Your task to perform on an android device: toggle priority inbox in the gmail app Image 0: 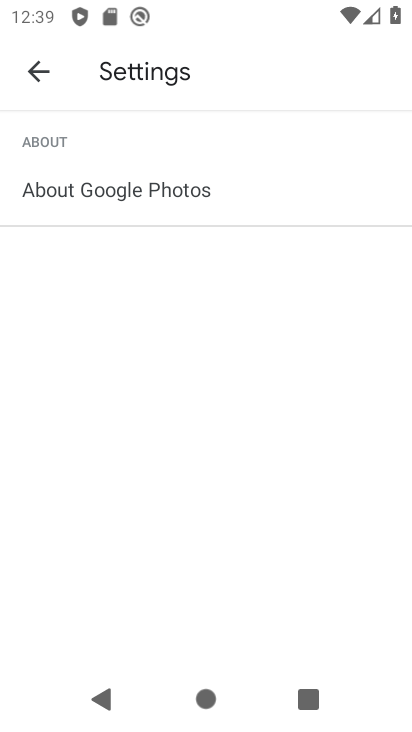
Step 0: press home button
Your task to perform on an android device: toggle priority inbox in the gmail app Image 1: 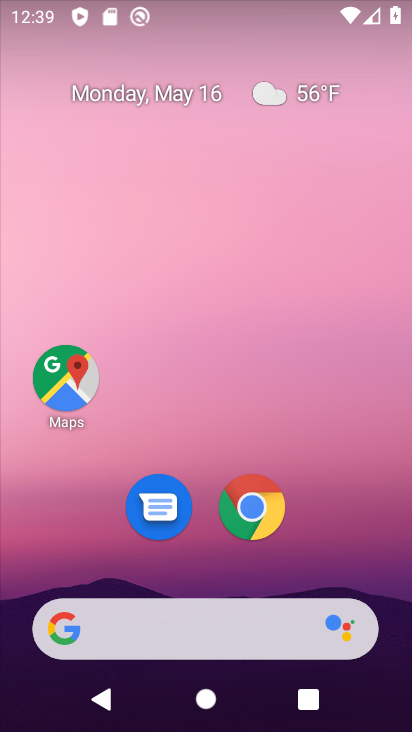
Step 1: drag from (202, 570) to (207, 219)
Your task to perform on an android device: toggle priority inbox in the gmail app Image 2: 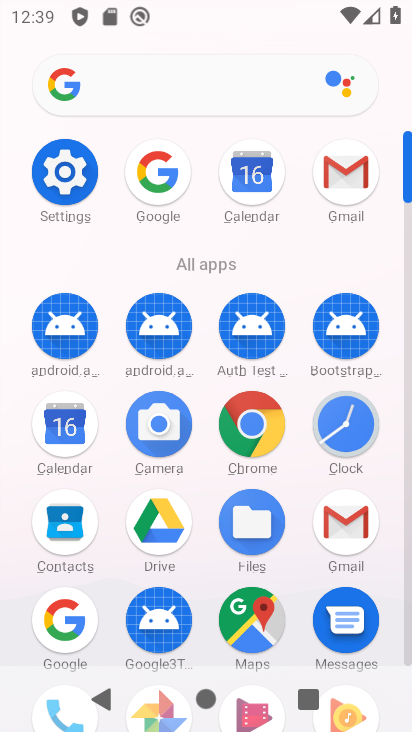
Step 2: click (325, 192)
Your task to perform on an android device: toggle priority inbox in the gmail app Image 3: 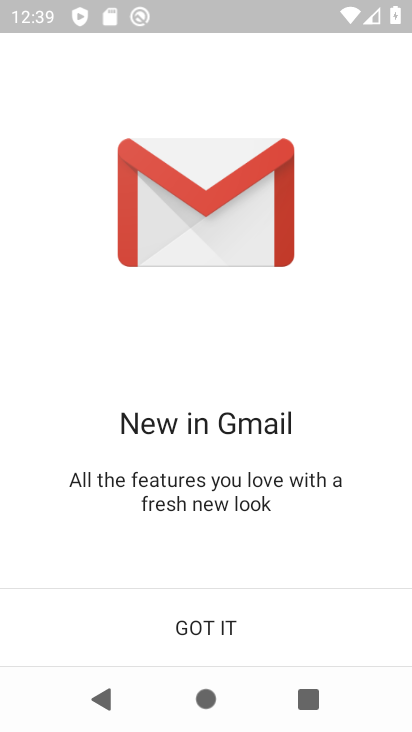
Step 3: click (216, 607)
Your task to perform on an android device: toggle priority inbox in the gmail app Image 4: 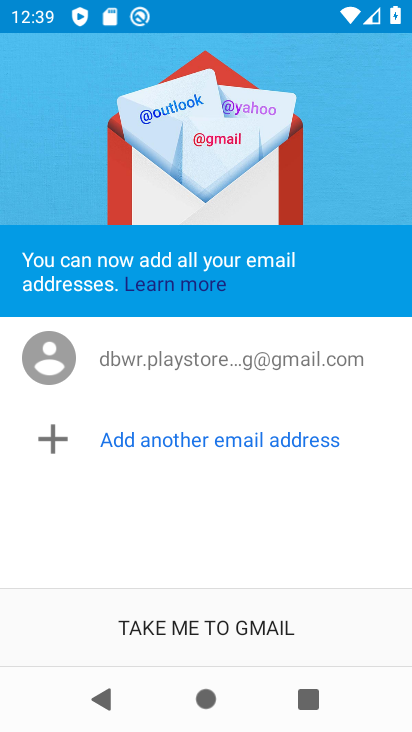
Step 4: click (216, 607)
Your task to perform on an android device: toggle priority inbox in the gmail app Image 5: 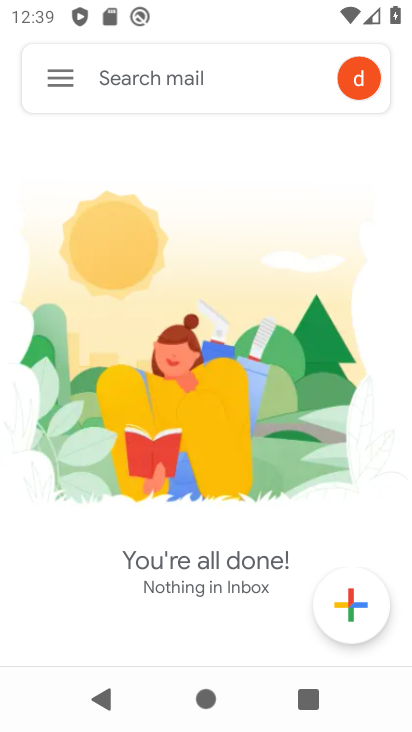
Step 5: click (85, 72)
Your task to perform on an android device: toggle priority inbox in the gmail app Image 6: 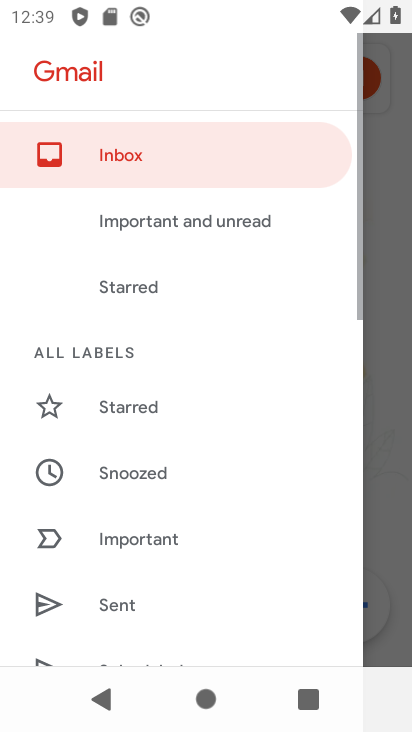
Step 6: drag from (227, 527) to (274, 313)
Your task to perform on an android device: toggle priority inbox in the gmail app Image 7: 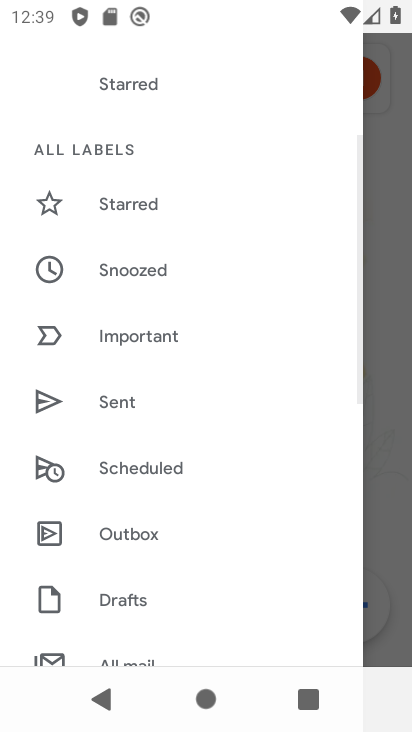
Step 7: drag from (239, 501) to (274, 332)
Your task to perform on an android device: toggle priority inbox in the gmail app Image 8: 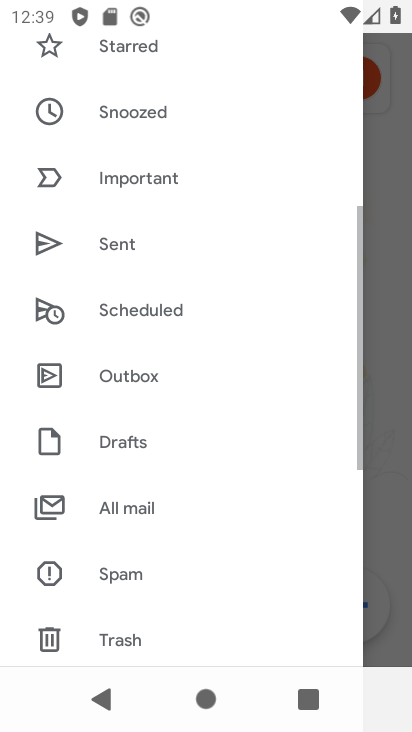
Step 8: drag from (187, 558) to (239, 336)
Your task to perform on an android device: toggle priority inbox in the gmail app Image 9: 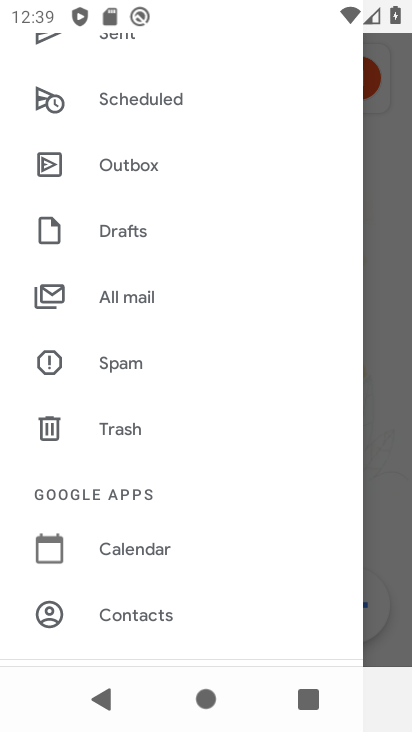
Step 9: drag from (154, 604) to (208, 377)
Your task to perform on an android device: toggle priority inbox in the gmail app Image 10: 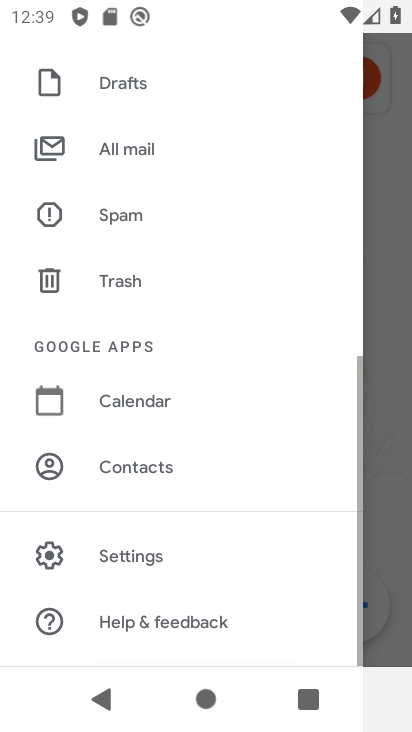
Step 10: click (160, 560)
Your task to perform on an android device: toggle priority inbox in the gmail app Image 11: 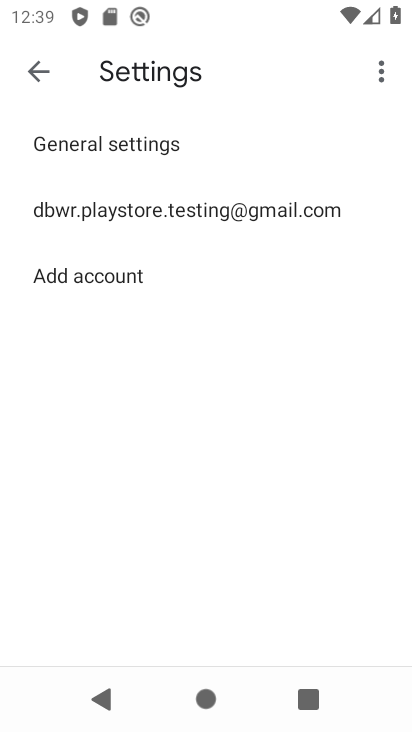
Step 11: click (187, 209)
Your task to perform on an android device: toggle priority inbox in the gmail app Image 12: 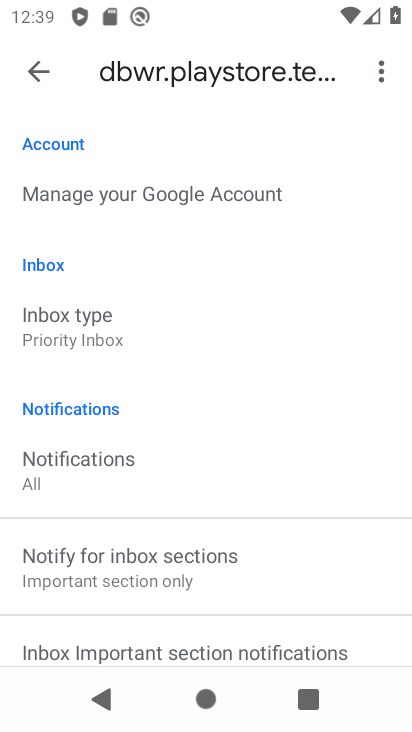
Step 12: drag from (179, 606) to (220, 388)
Your task to perform on an android device: toggle priority inbox in the gmail app Image 13: 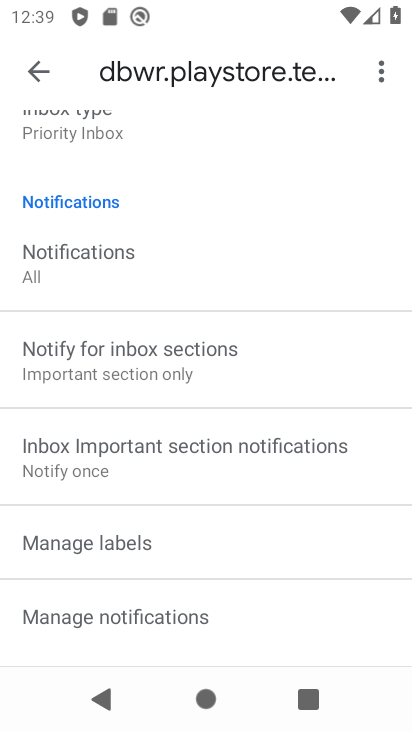
Step 13: drag from (165, 263) to (170, 538)
Your task to perform on an android device: toggle priority inbox in the gmail app Image 14: 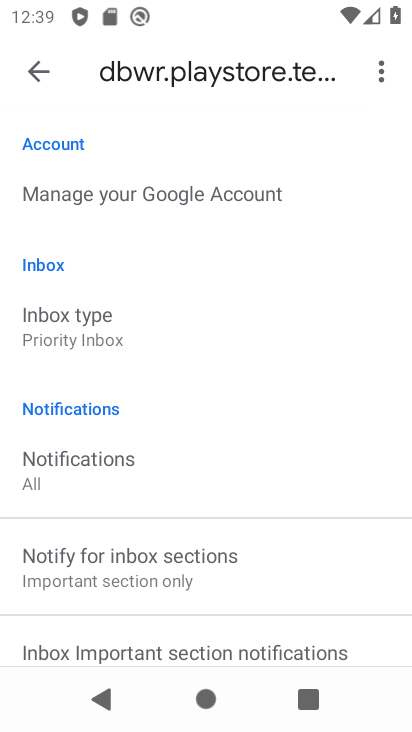
Step 14: click (120, 335)
Your task to perform on an android device: toggle priority inbox in the gmail app Image 15: 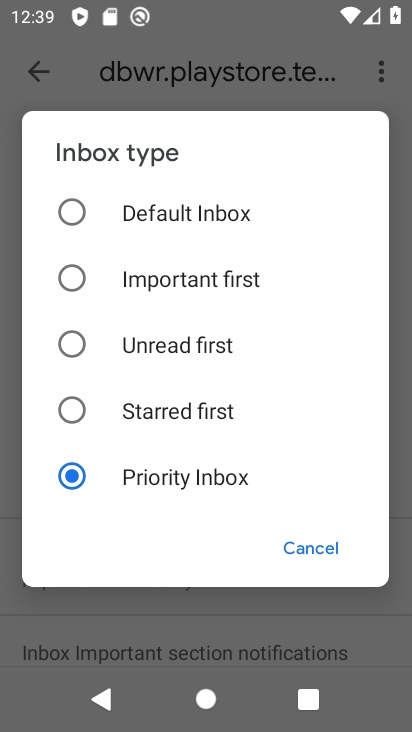
Step 15: click (134, 215)
Your task to perform on an android device: toggle priority inbox in the gmail app Image 16: 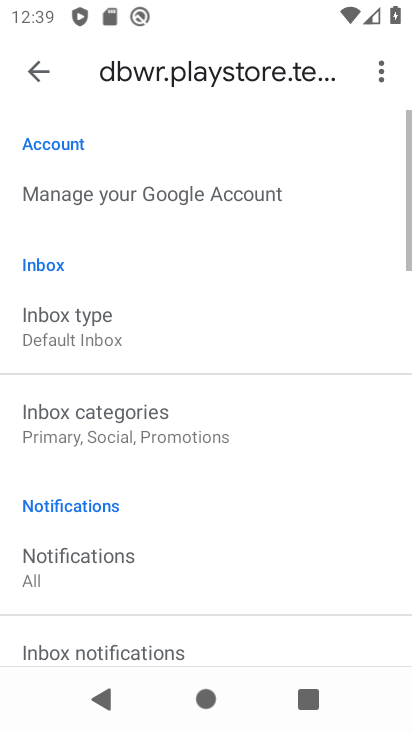
Step 16: task complete